Your task to perform on an android device: change the clock style Image 0: 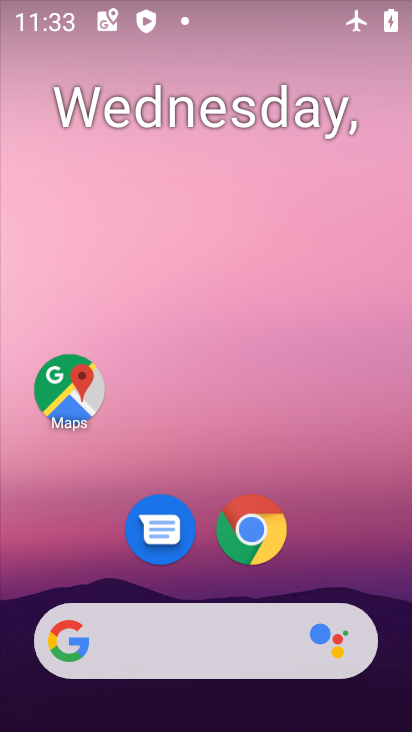
Step 0: drag from (208, 582) to (196, 24)
Your task to perform on an android device: change the clock style Image 1: 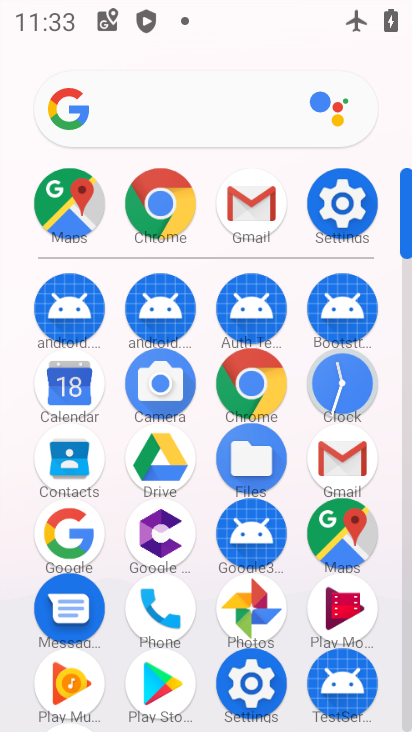
Step 1: click (338, 398)
Your task to perform on an android device: change the clock style Image 2: 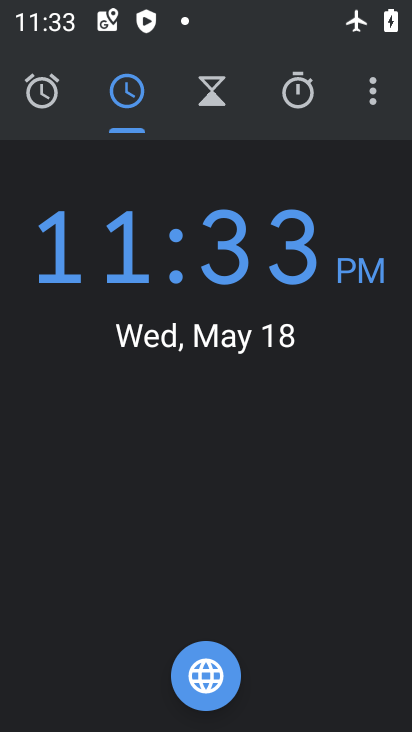
Step 2: click (367, 94)
Your task to perform on an android device: change the clock style Image 3: 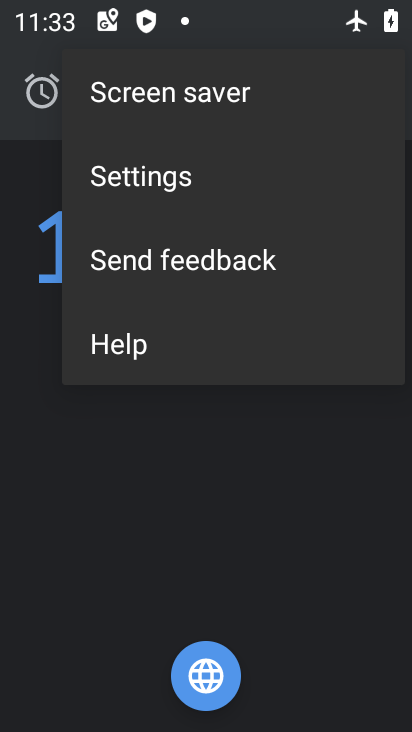
Step 3: click (182, 179)
Your task to perform on an android device: change the clock style Image 4: 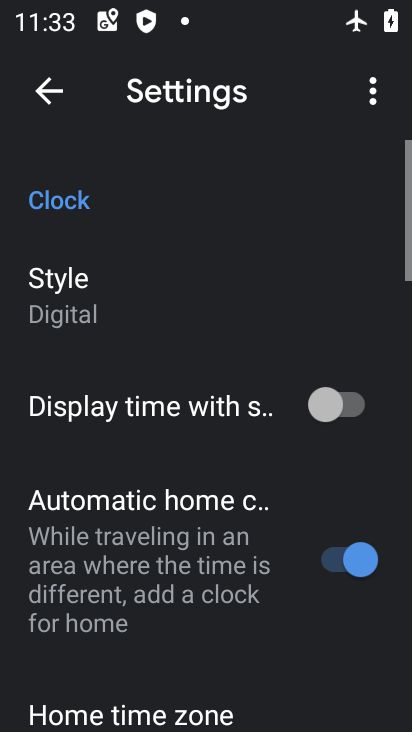
Step 4: click (179, 280)
Your task to perform on an android device: change the clock style Image 5: 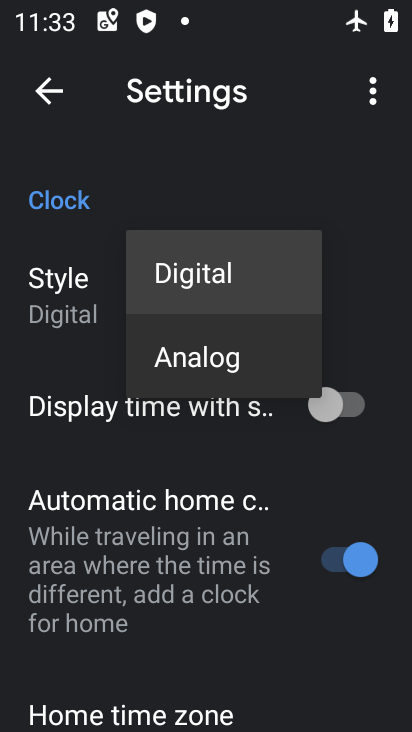
Step 5: click (215, 353)
Your task to perform on an android device: change the clock style Image 6: 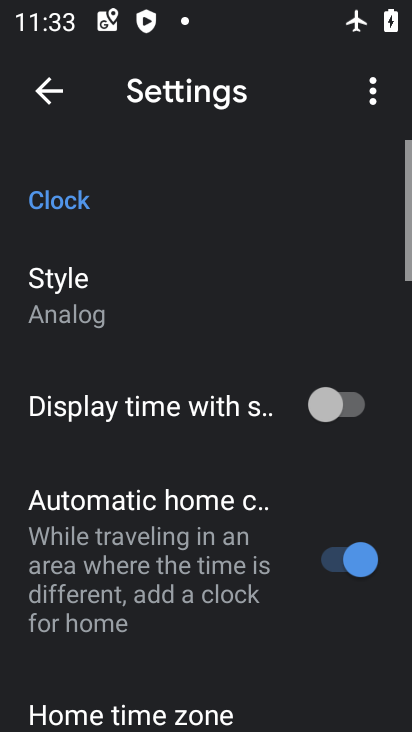
Step 6: task complete